Your task to perform on an android device: turn off airplane mode Image 0: 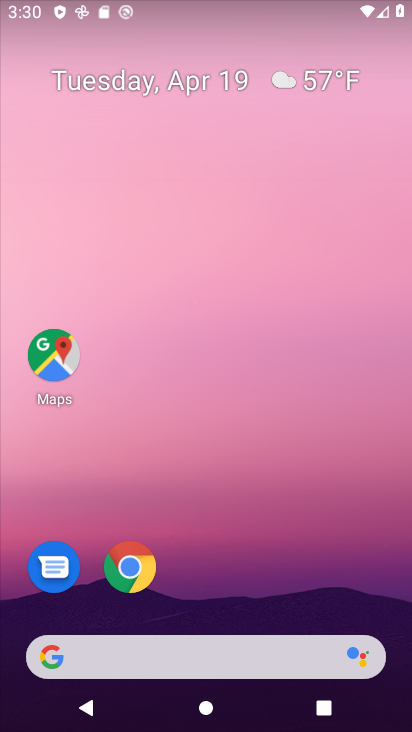
Step 0: drag from (367, 598) to (371, 122)
Your task to perform on an android device: turn off airplane mode Image 1: 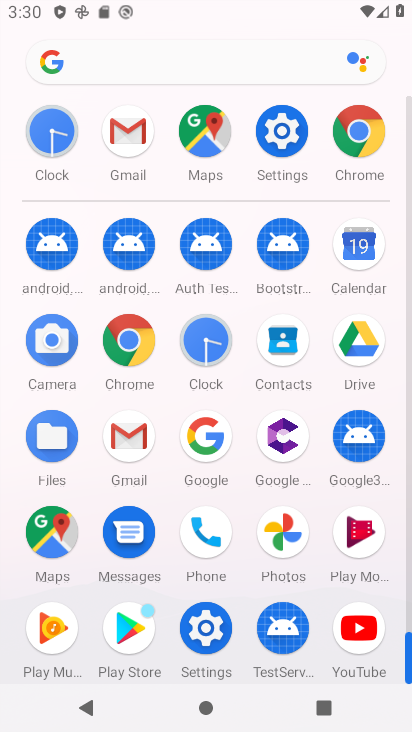
Step 1: click (277, 139)
Your task to perform on an android device: turn off airplane mode Image 2: 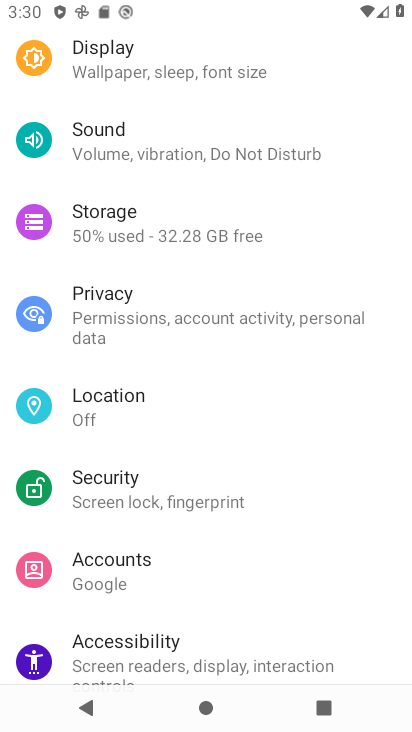
Step 2: drag from (347, 536) to (371, 359)
Your task to perform on an android device: turn off airplane mode Image 3: 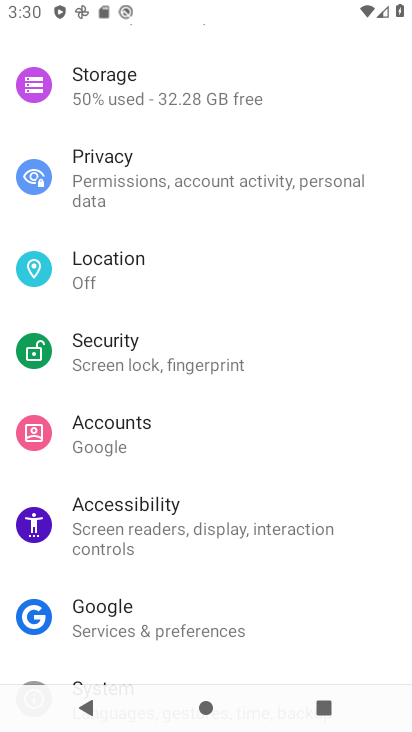
Step 3: drag from (351, 588) to (355, 351)
Your task to perform on an android device: turn off airplane mode Image 4: 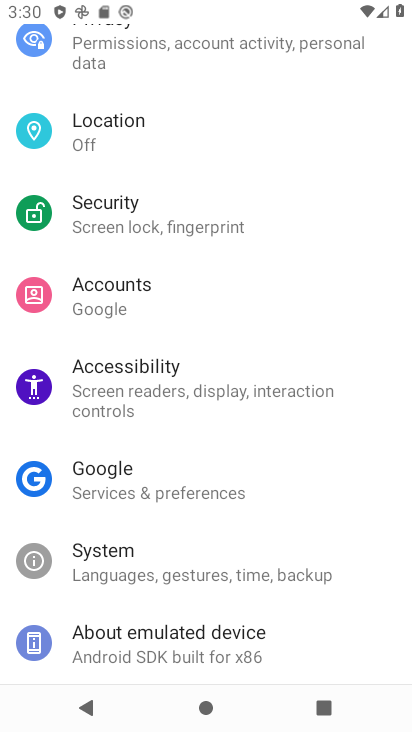
Step 4: drag from (355, 294) to (365, 494)
Your task to perform on an android device: turn off airplane mode Image 5: 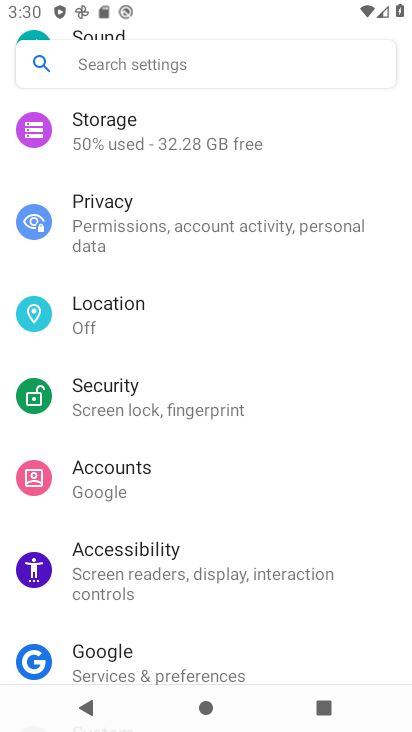
Step 5: drag from (359, 300) to (352, 488)
Your task to perform on an android device: turn off airplane mode Image 6: 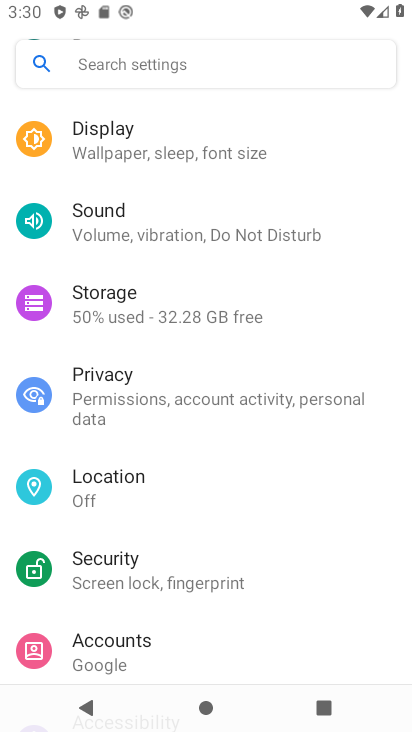
Step 6: drag from (357, 283) to (348, 496)
Your task to perform on an android device: turn off airplane mode Image 7: 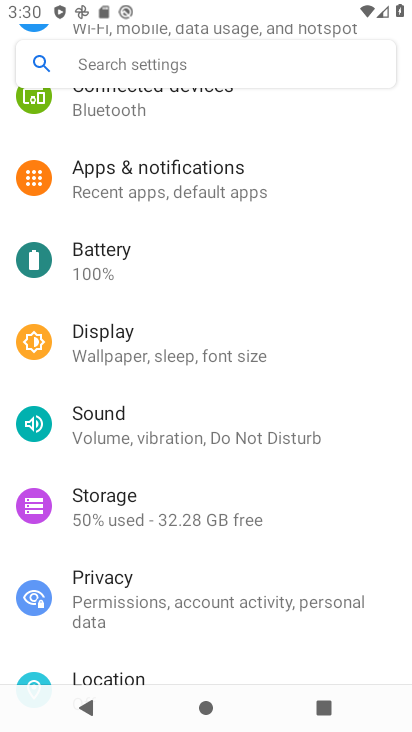
Step 7: drag from (357, 254) to (367, 487)
Your task to perform on an android device: turn off airplane mode Image 8: 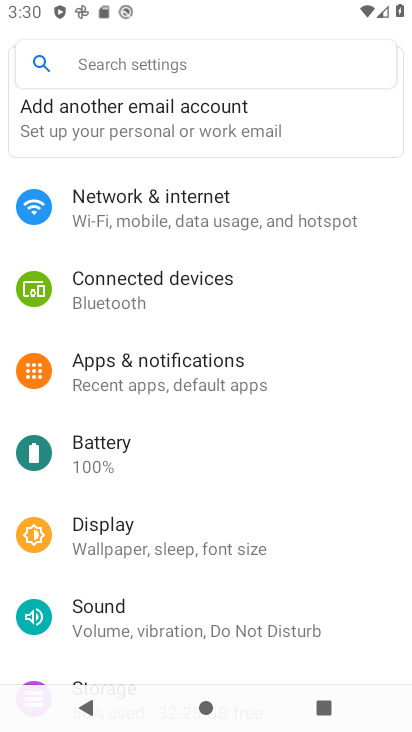
Step 8: drag from (372, 245) to (377, 447)
Your task to perform on an android device: turn off airplane mode Image 9: 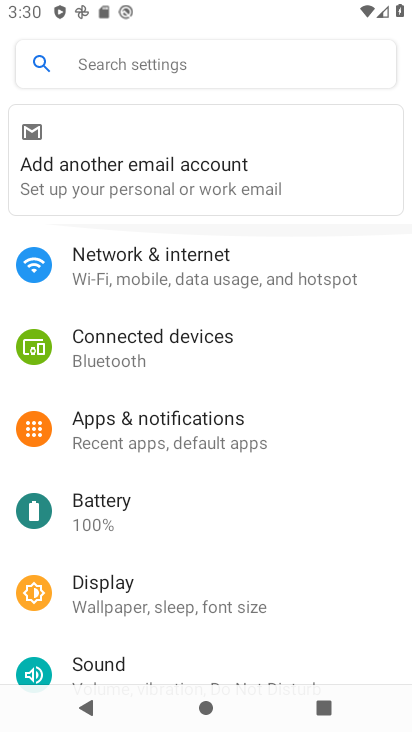
Step 9: click (261, 261)
Your task to perform on an android device: turn off airplane mode Image 10: 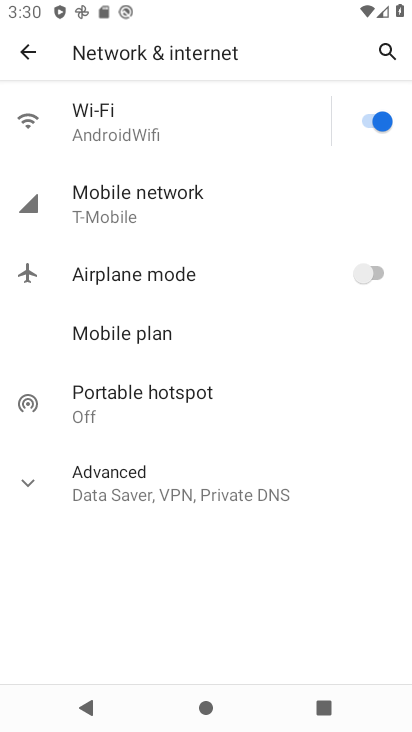
Step 10: task complete